Your task to perform on an android device: create a new album in the google photos Image 0: 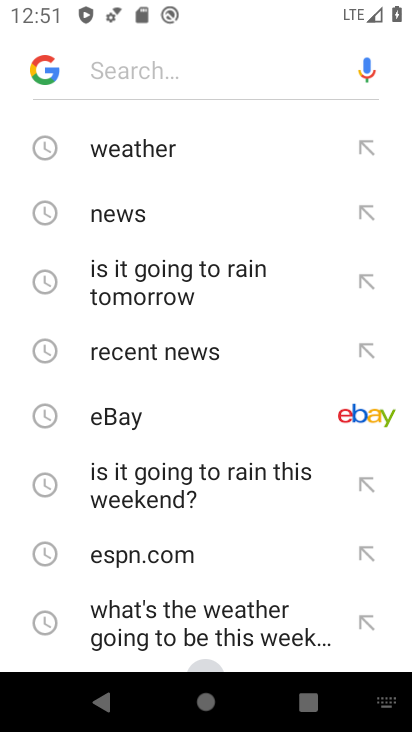
Step 0: click (186, 268)
Your task to perform on an android device: create a new album in the google photos Image 1: 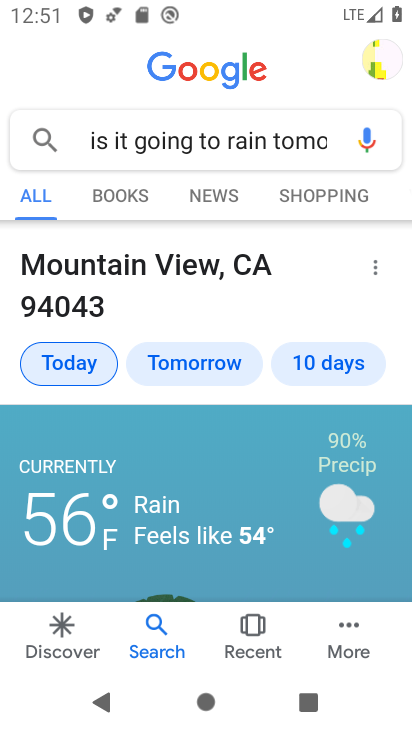
Step 1: task complete